Your task to perform on an android device: set the timer Image 0: 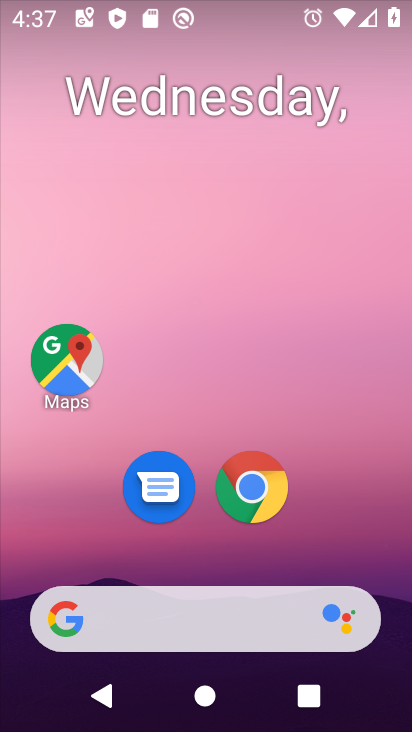
Step 0: drag from (196, 567) to (272, 32)
Your task to perform on an android device: set the timer Image 1: 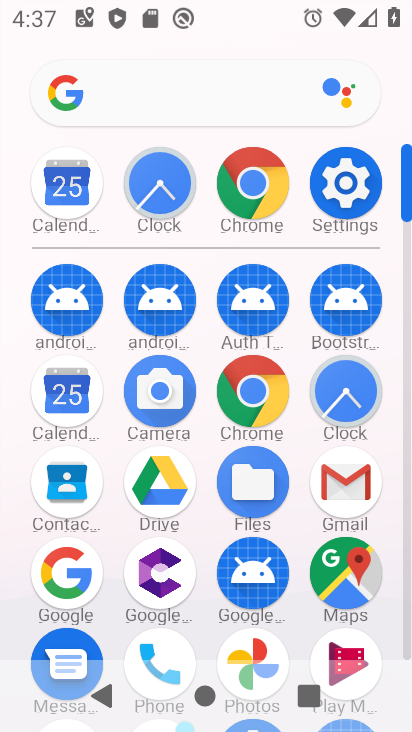
Step 1: click (345, 388)
Your task to perform on an android device: set the timer Image 2: 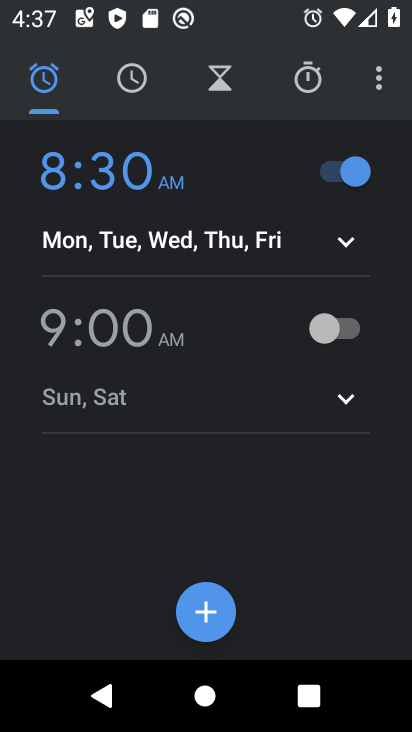
Step 2: click (215, 82)
Your task to perform on an android device: set the timer Image 3: 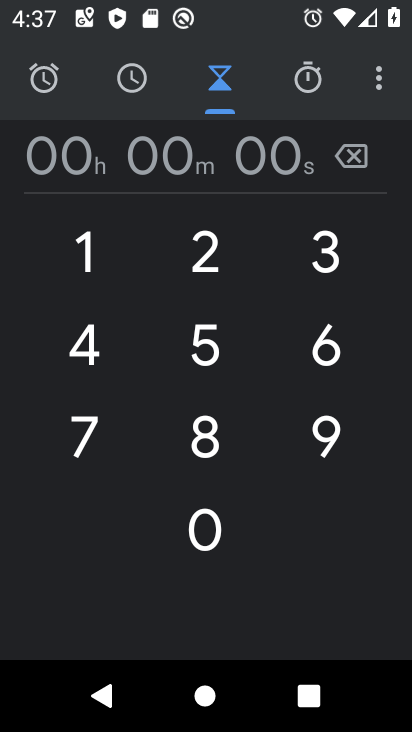
Step 3: click (202, 244)
Your task to perform on an android device: set the timer Image 4: 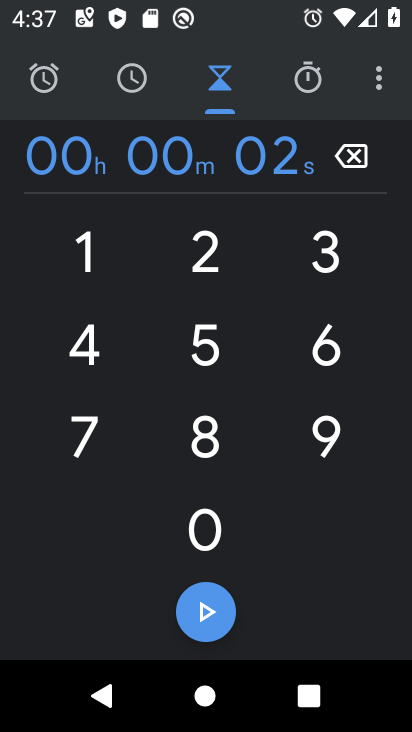
Step 4: click (190, 525)
Your task to perform on an android device: set the timer Image 5: 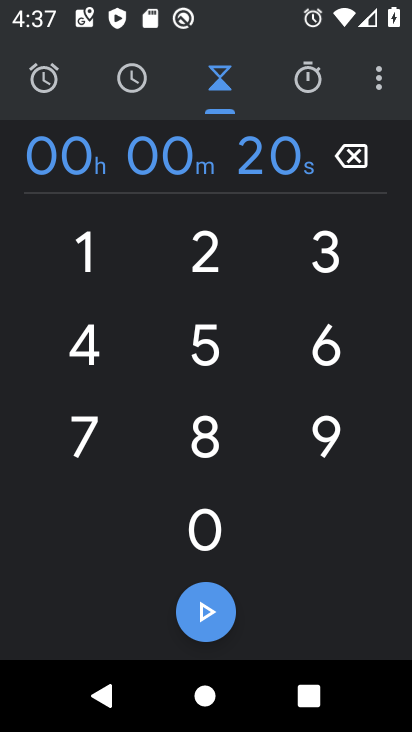
Step 5: click (190, 525)
Your task to perform on an android device: set the timer Image 6: 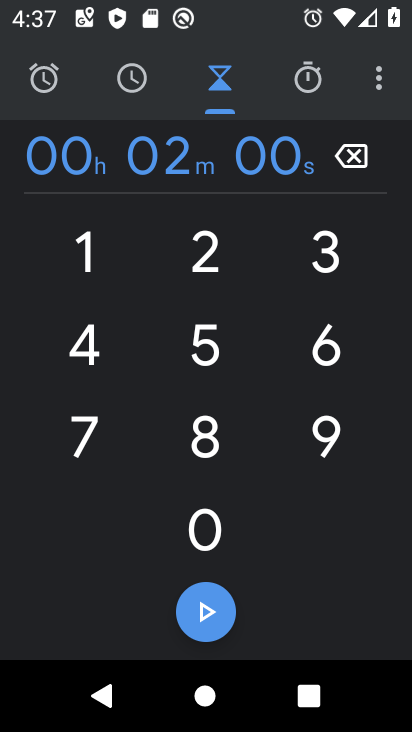
Step 6: click (193, 612)
Your task to perform on an android device: set the timer Image 7: 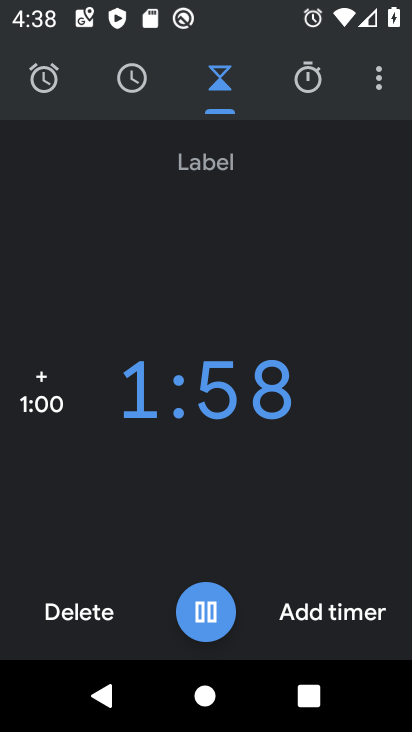
Step 7: task complete